Your task to perform on an android device: Open the web browser Image 0: 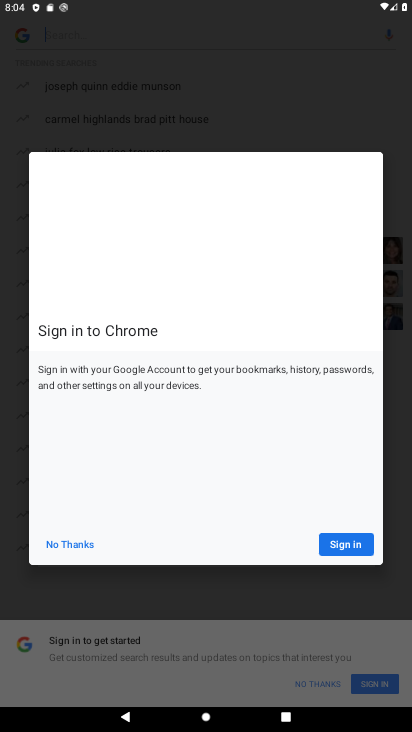
Step 0: press home button
Your task to perform on an android device: Open the web browser Image 1: 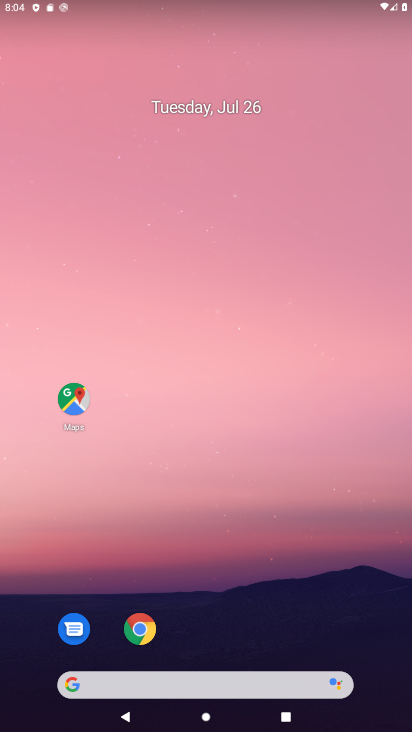
Step 1: click (171, 676)
Your task to perform on an android device: Open the web browser Image 2: 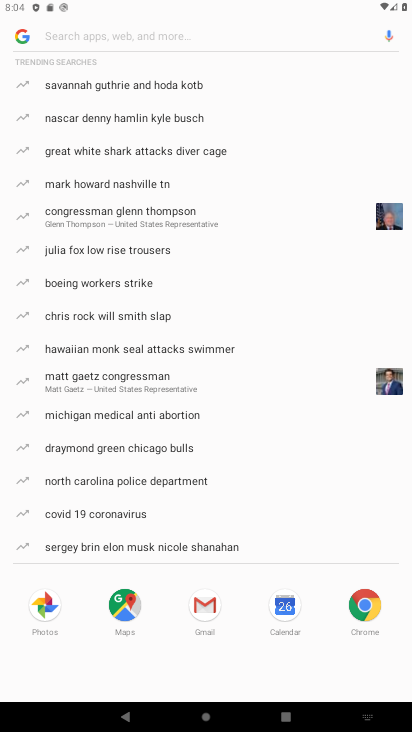
Step 2: task complete